Your task to perform on an android device: change notifications settings Image 0: 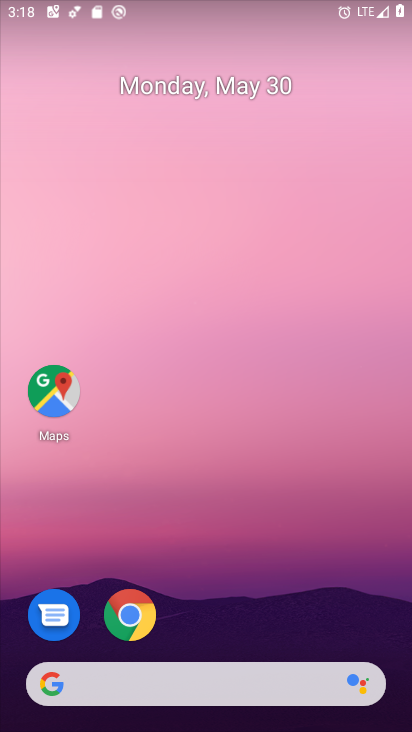
Step 0: drag from (218, 571) to (324, 15)
Your task to perform on an android device: change notifications settings Image 1: 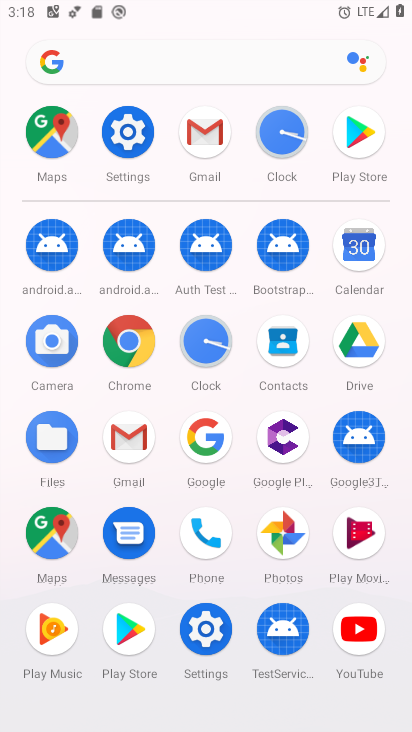
Step 1: click (142, 127)
Your task to perform on an android device: change notifications settings Image 2: 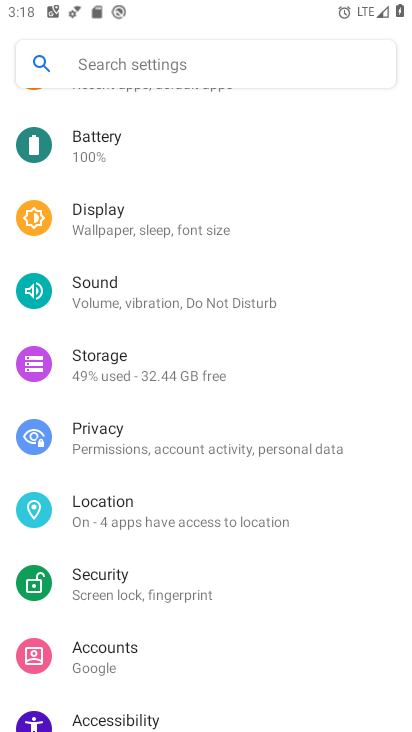
Step 2: drag from (242, 208) to (191, 618)
Your task to perform on an android device: change notifications settings Image 3: 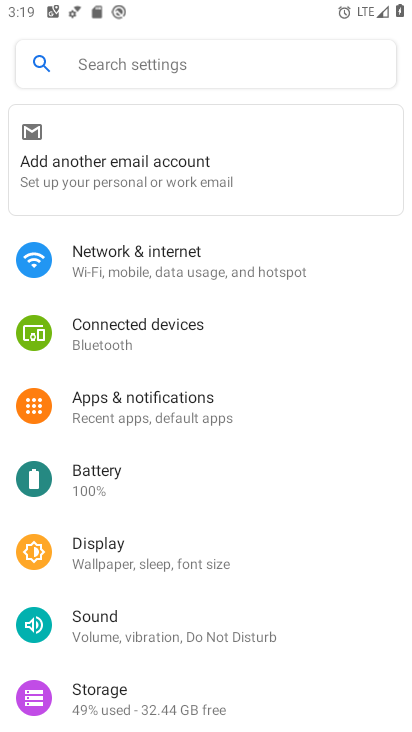
Step 3: click (178, 400)
Your task to perform on an android device: change notifications settings Image 4: 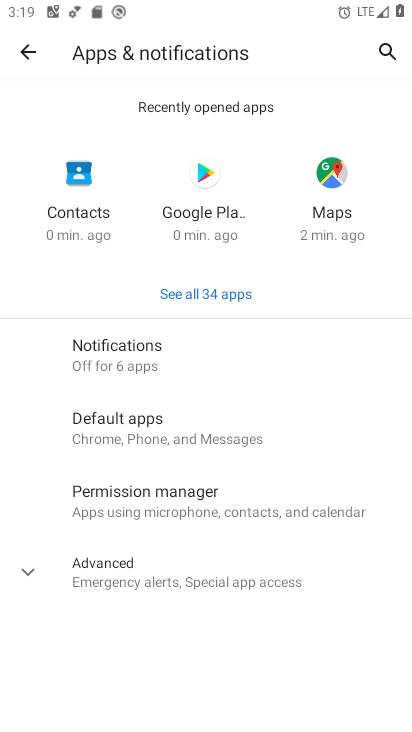
Step 4: click (159, 355)
Your task to perform on an android device: change notifications settings Image 5: 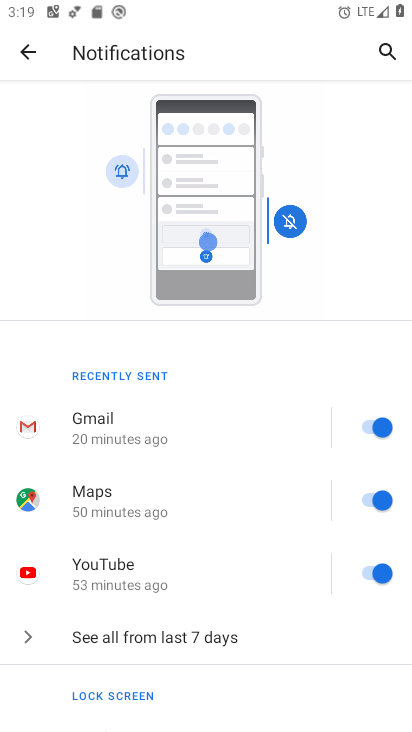
Step 5: click (216, 637)
Your task to perform on an android device: change notifications settings Image 6: 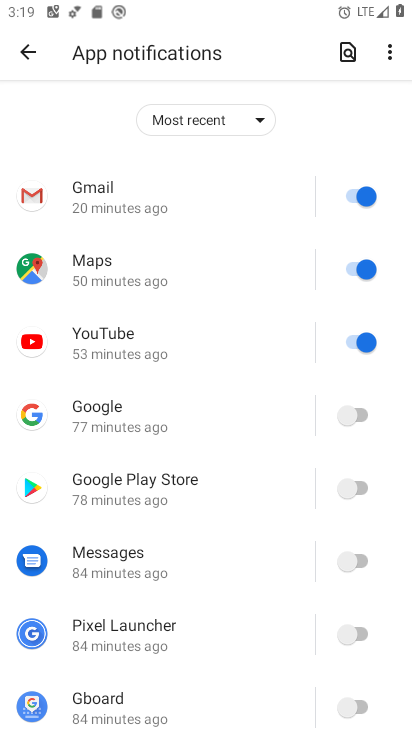
Step 6: click (355, 187)
Your task to perform on an android device: change notifications settings Image 7: 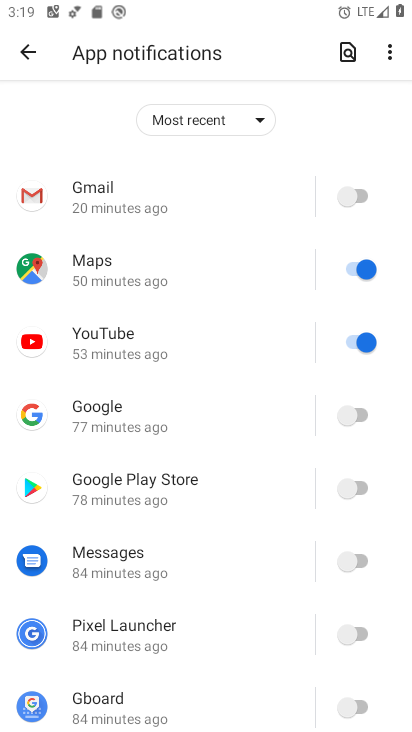
Step 7: click (368, 264)
Your task to perform on an android device: change notifications settings Image 8: 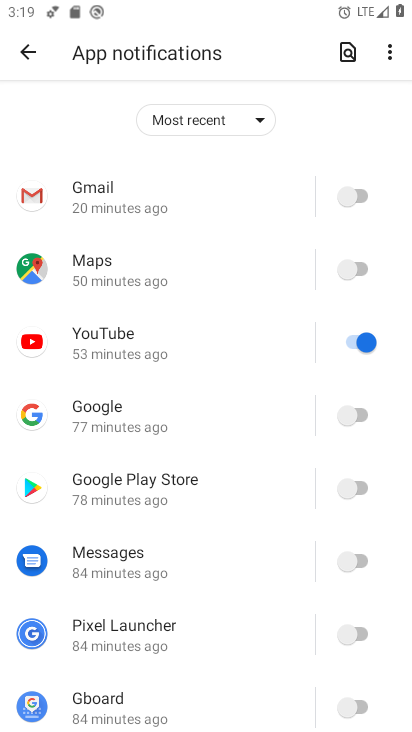
Step 8: click (366, 340)
Your task to perform on an android device: change notifications settings Image 9: 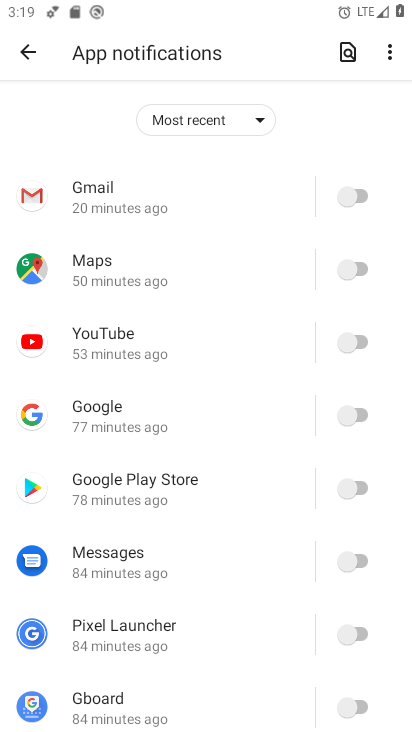
Step 9: click (362, 413)
Your task to perform on an android device: change notifications settings Image 10: 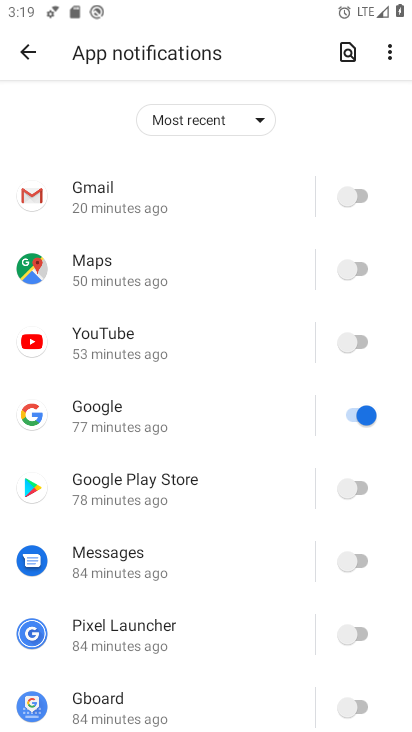
Step 10: click (354, 491)
Your task to perform on an android device: change notifications settings Image 11: 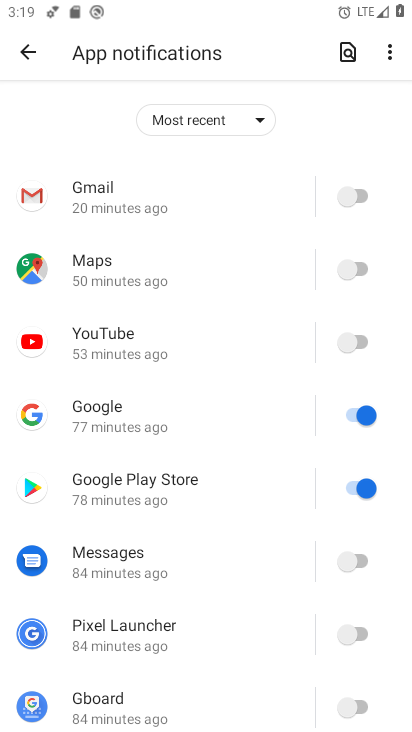
Step 11: click (354, 552)
Your task to perform on an android device: change notifications settings Image 12: 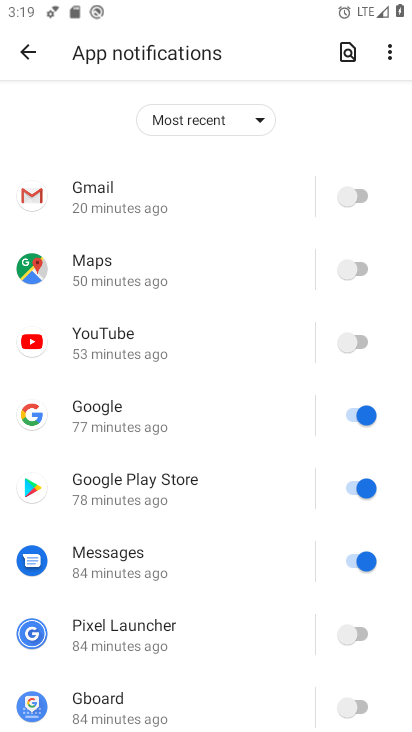
Step 12: click (359, 619)
Your task to perform on an android device: change notifications settings Image 13: 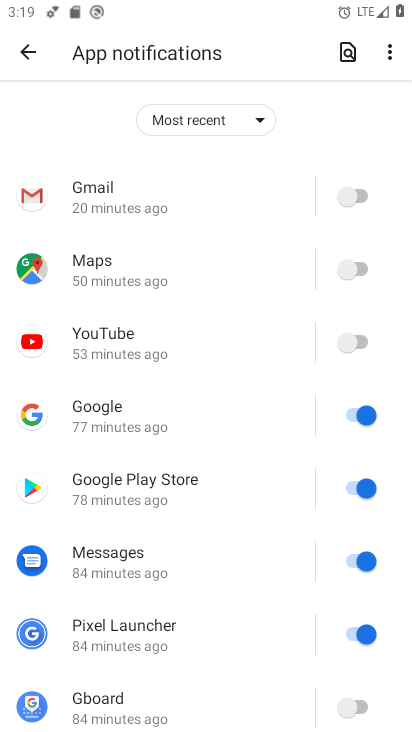
Step 13: click (361, 700)
Your task to perform on an android device: change notifications settings Image 14: 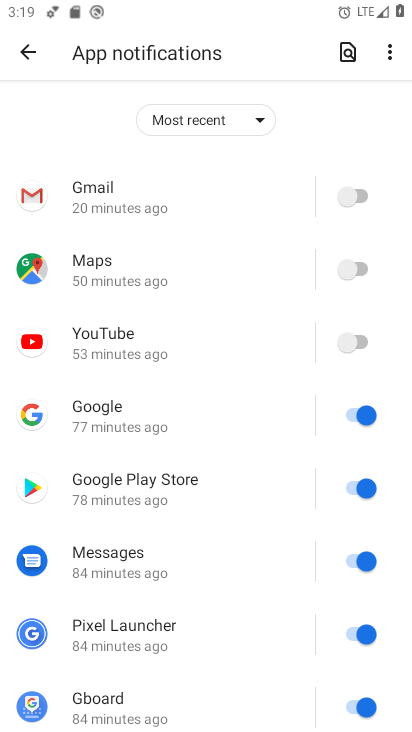
Step 14: task complete